Your task to perform on an android device: Add "asus rog" to the cart on bestbuy.com Image 0: 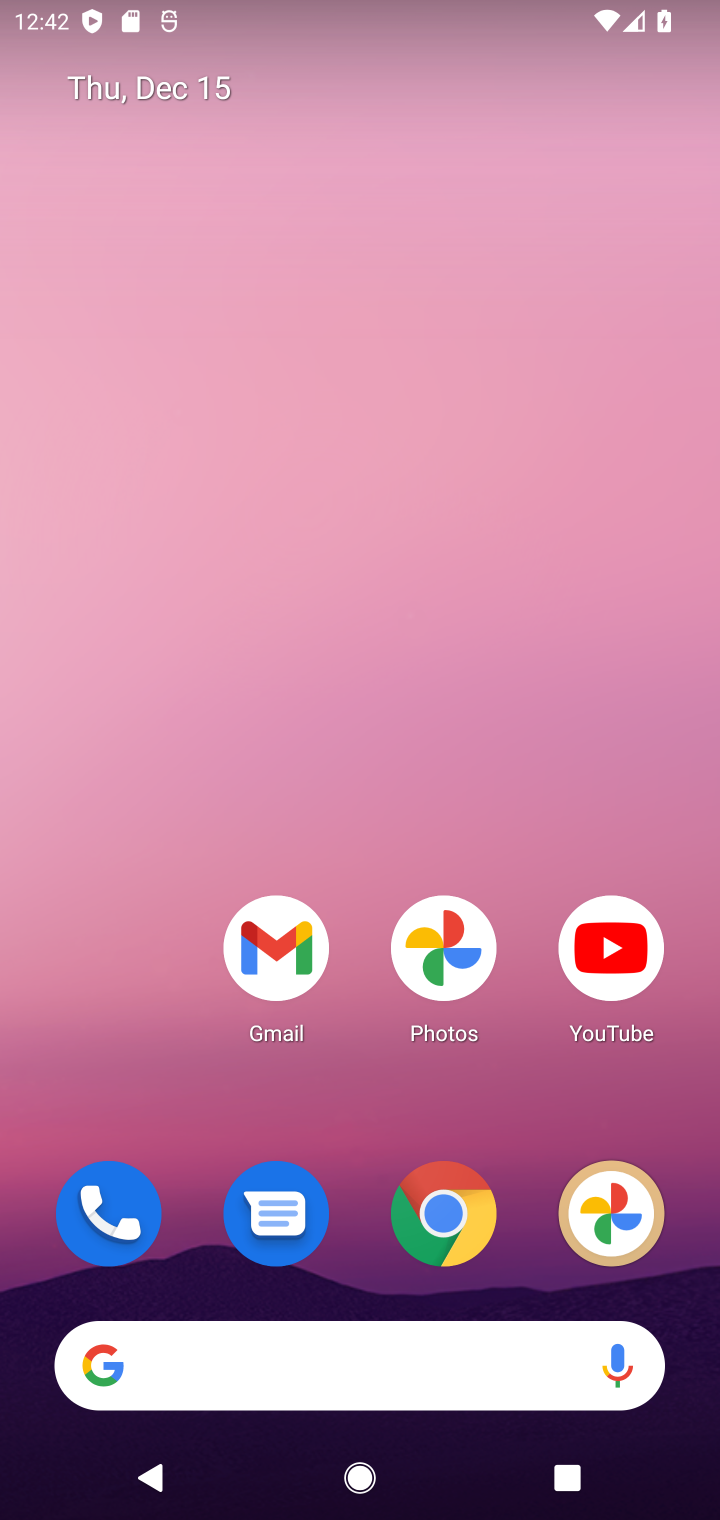
Step 0: click (457, 1238)
Your task to perform on an android device: Add "asus rog" to the cart on bestbuy.com Image 1: 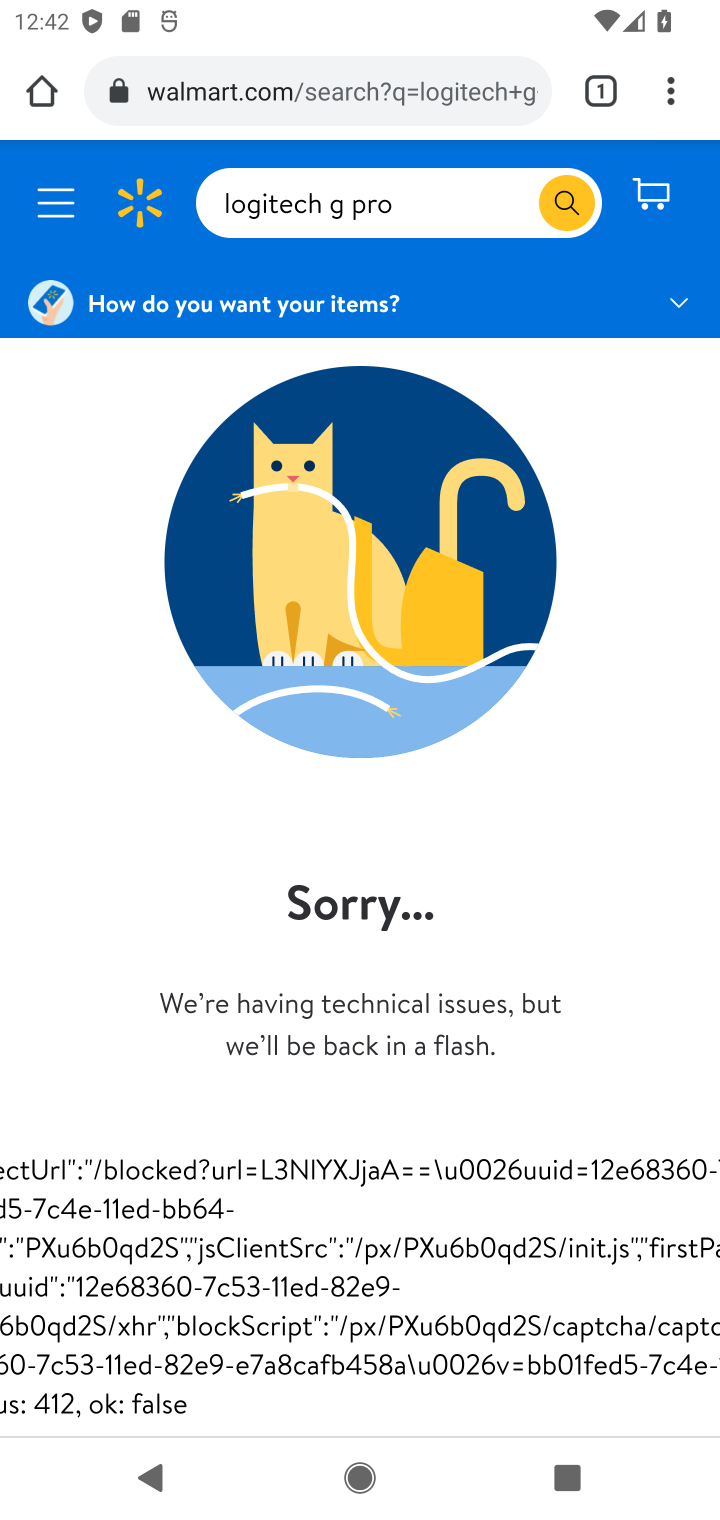
Step 1: click (236, 93)
Your task to perform on an android device: Add "asus rog" to the cart on bestbuy.com Image 2: 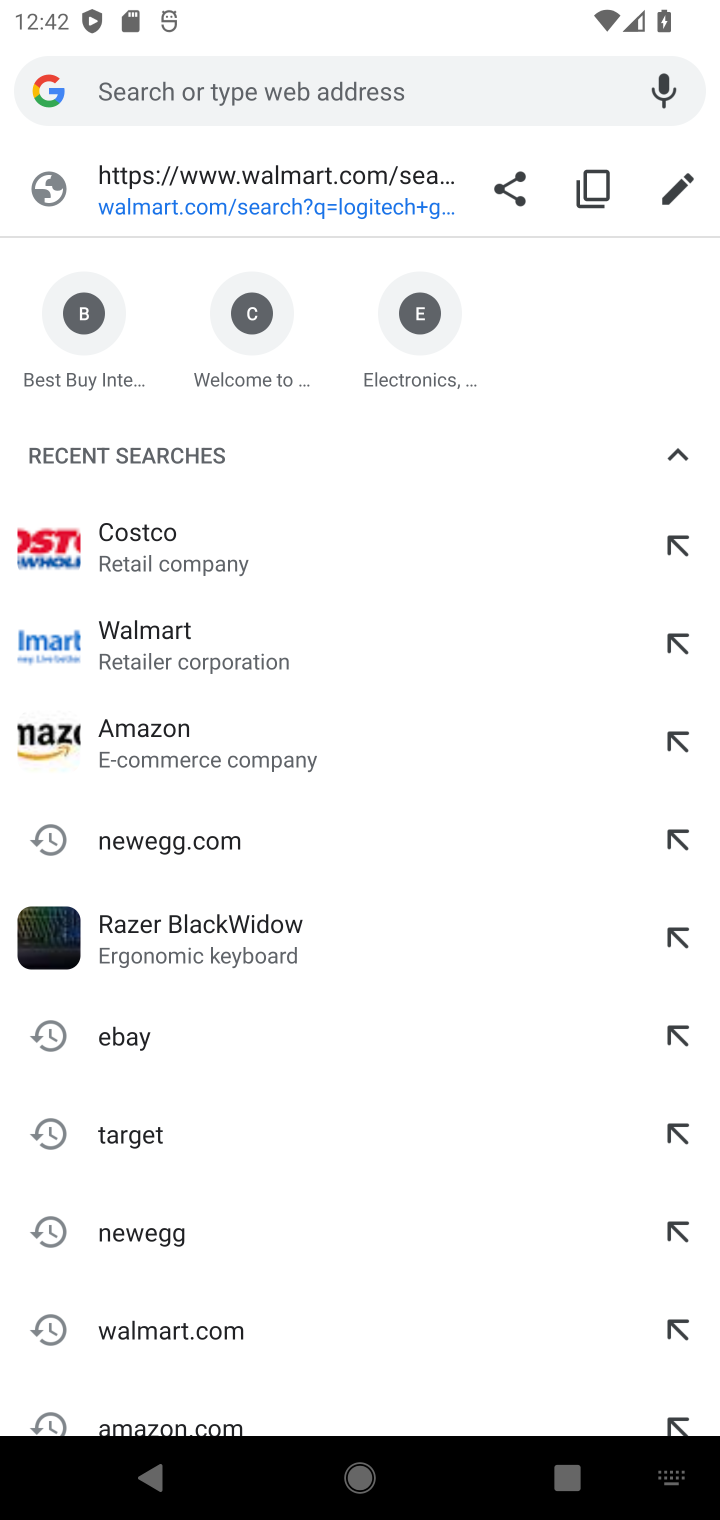
Step 2: type "bestbuy"
Your task to perform on an android device: Add "asus rog" to the cart on bestbuy.com Image 3: 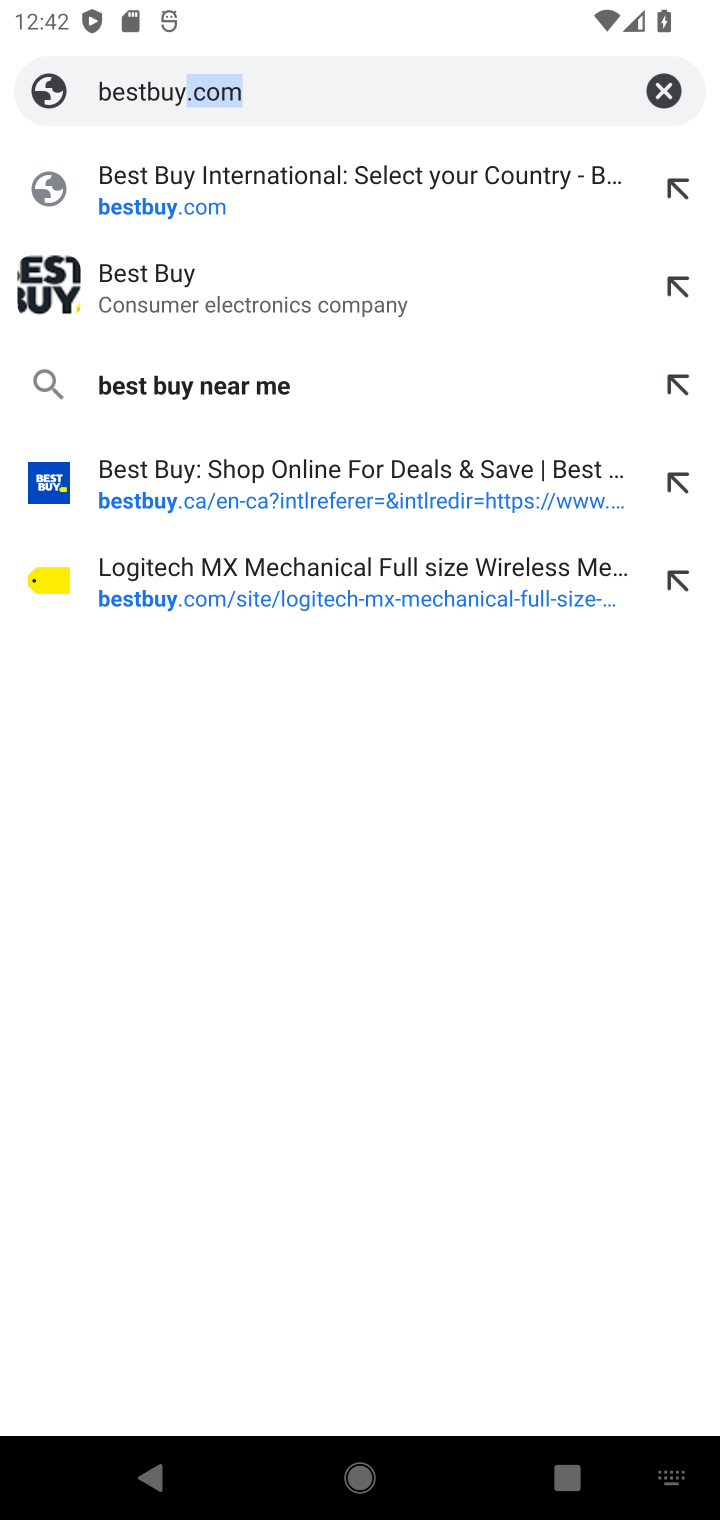
Step 3: click (236, 193)
Your task to perform on an android device: Add "asus rog" to the cart on bestbuy.com Image 4: 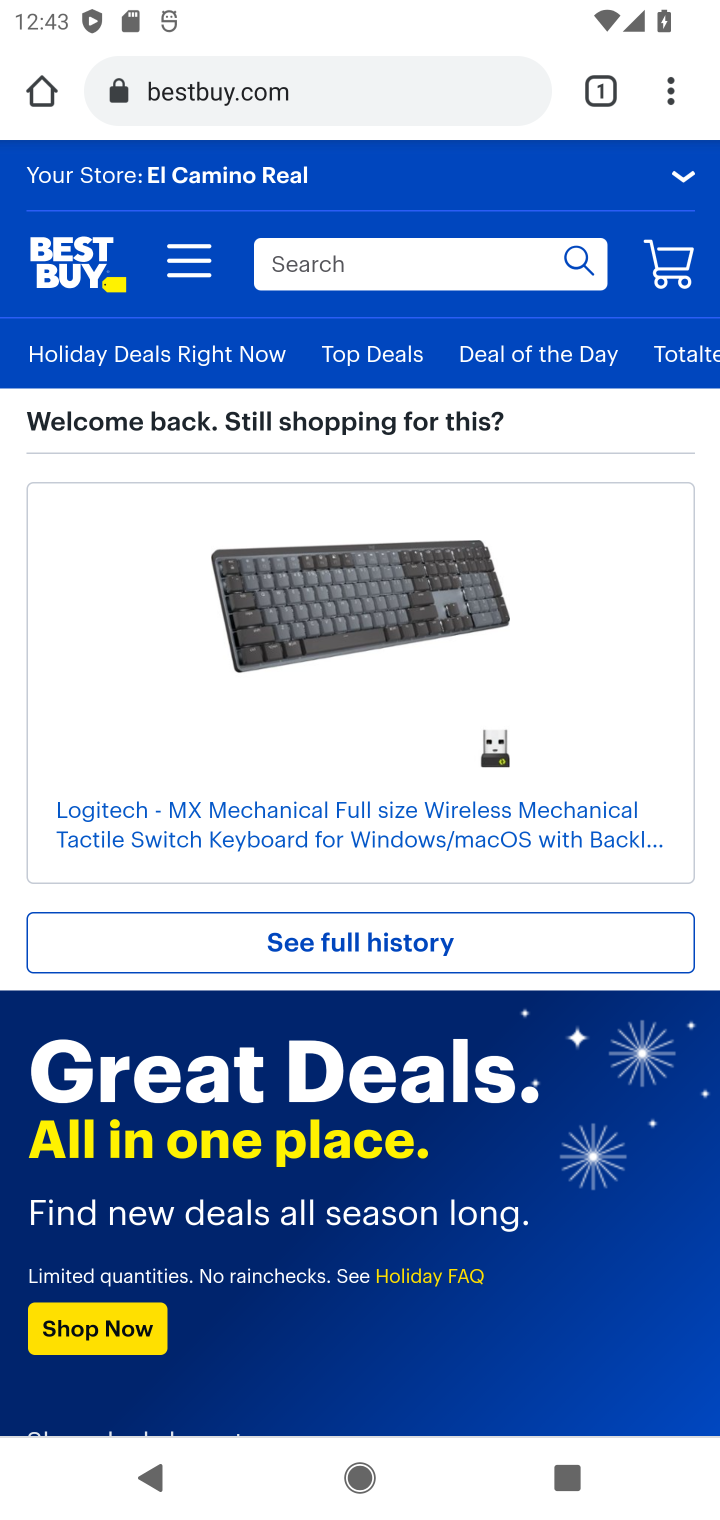
Step 4: click (359, 259)
Your task to perform on an android device: Add "asus rog" to the cart on bestbuy.com Image 5: 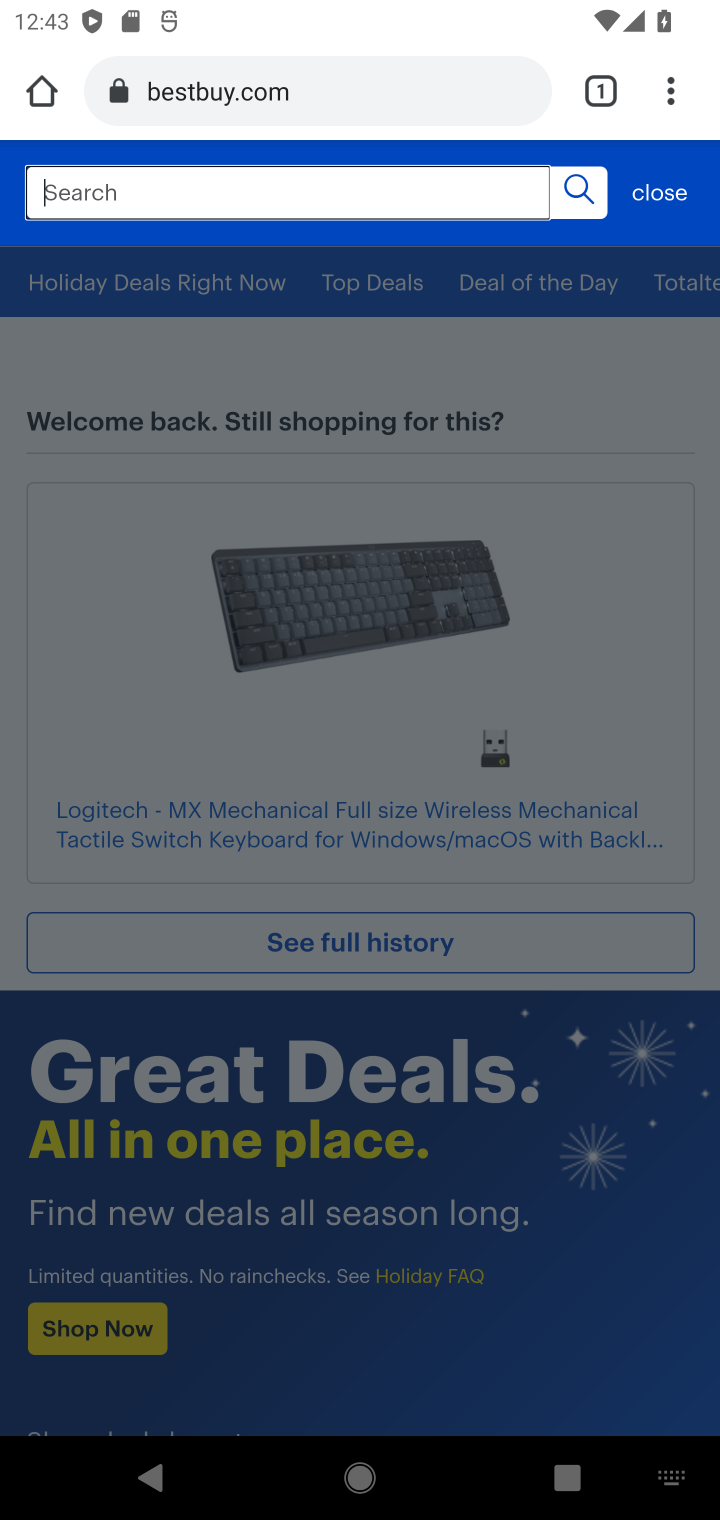
Step 5: type "asus rog"
Your task to perform on an android device: Add "asus rog" to the cart on bestbuy.com Image 6: 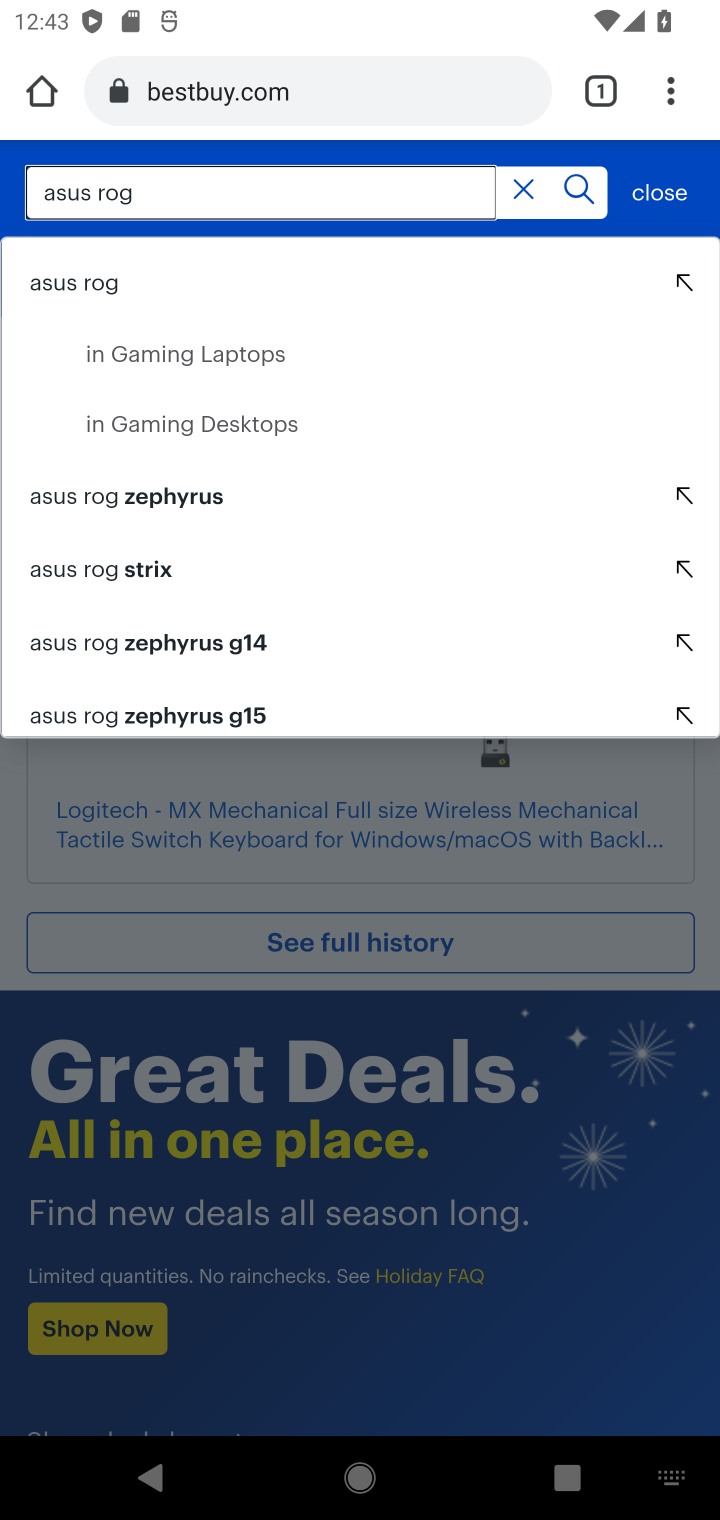
Step 6: click (51, 283)
Your task to perform on an android device: Add "asus rog" to the cart on bestbuy.com Image 7: 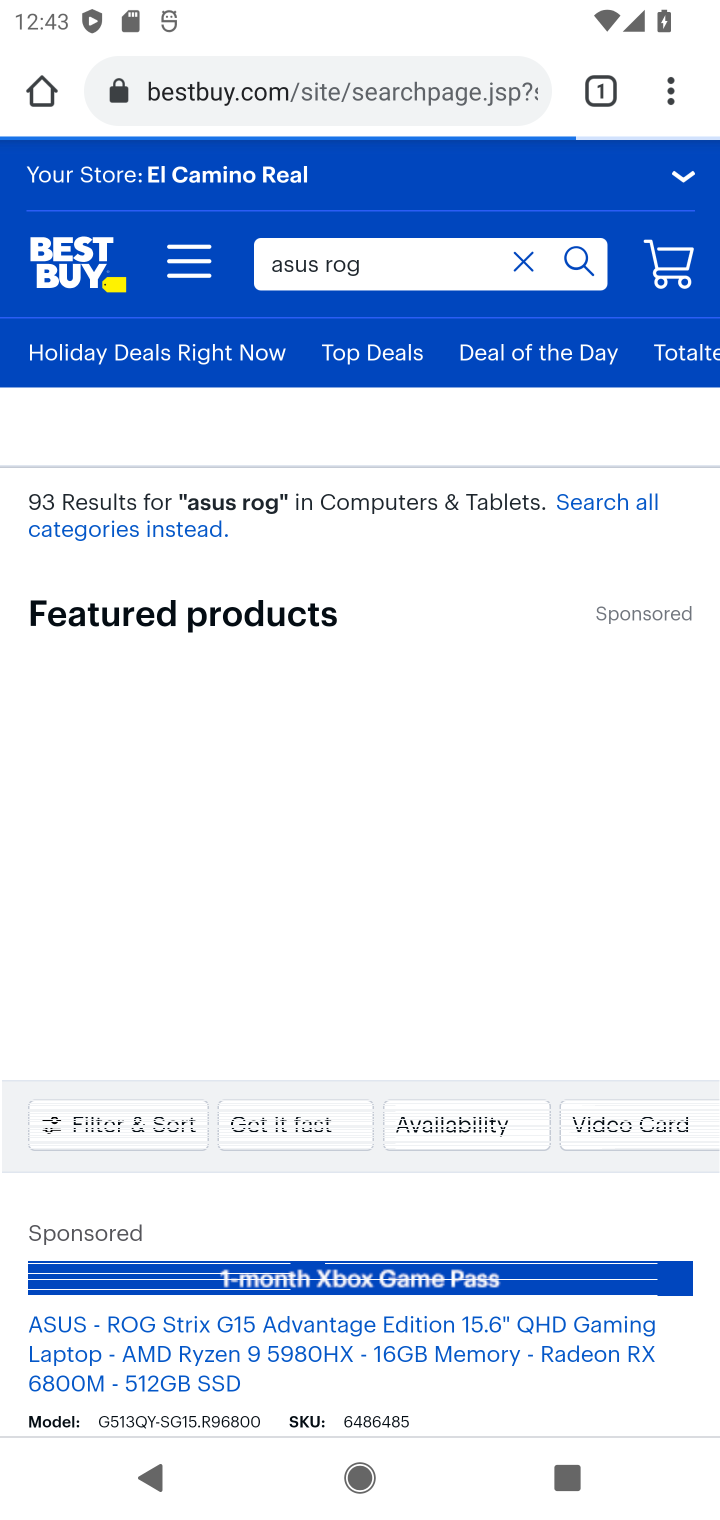
Step 7: click (580, 270)
Your task to perform on an android device: Add "asus rog" to the cart on bestbuy.com Image 8: 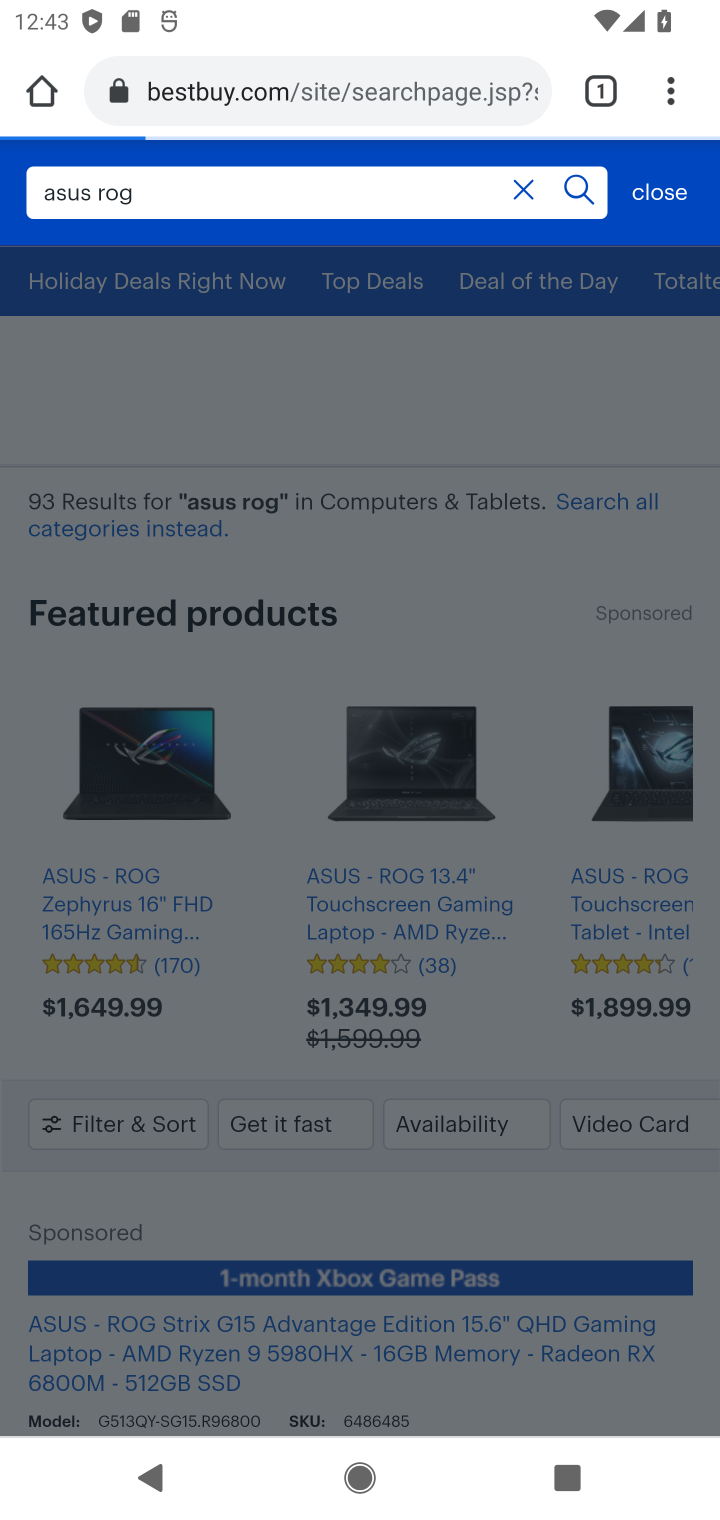
Step 8: click (168, 832)
Your task to perform on an android device: Add "asus rog" to the cart on bestbuy.com Image 9: 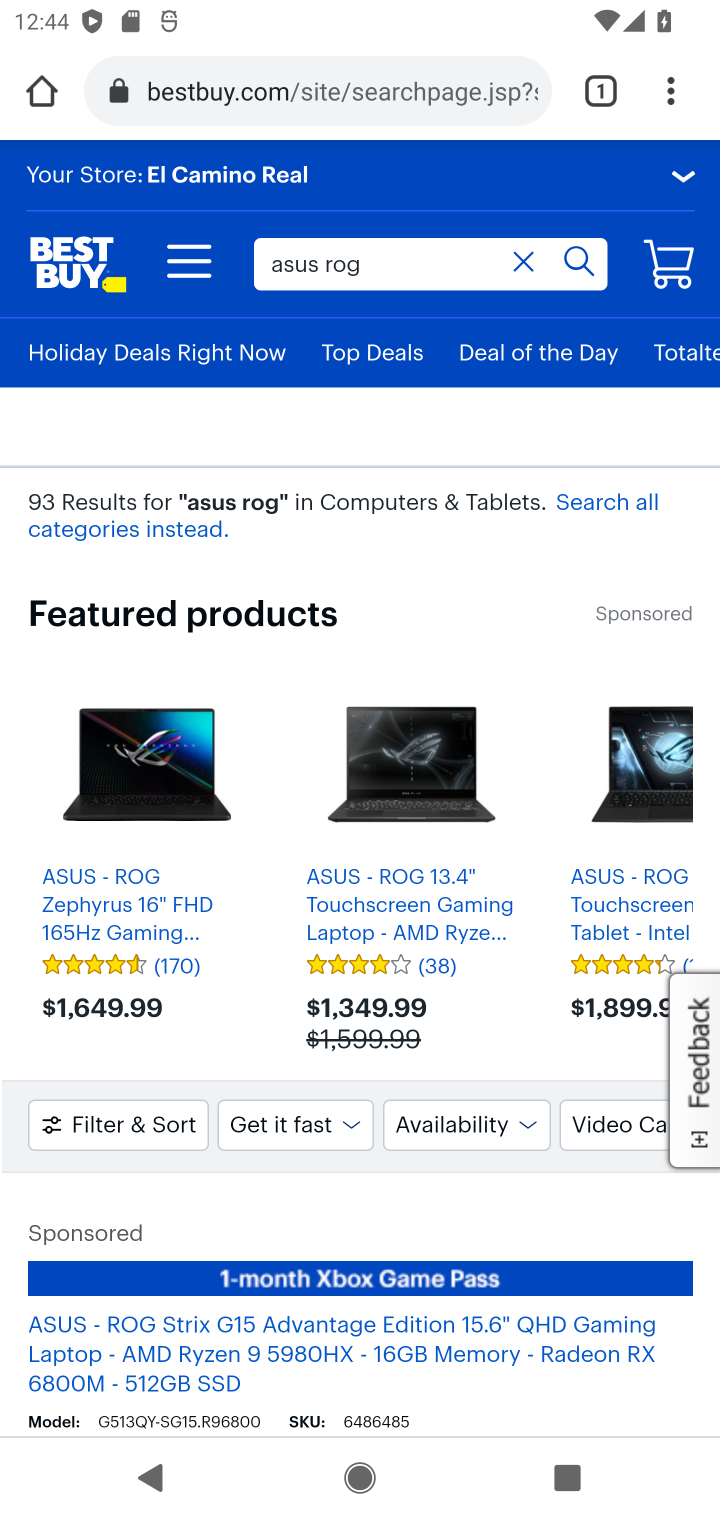
Step 9: click (205, 954)
Your task to perform on an android device: Add "asus rog" to the cart on bestbuy.com Image 10: 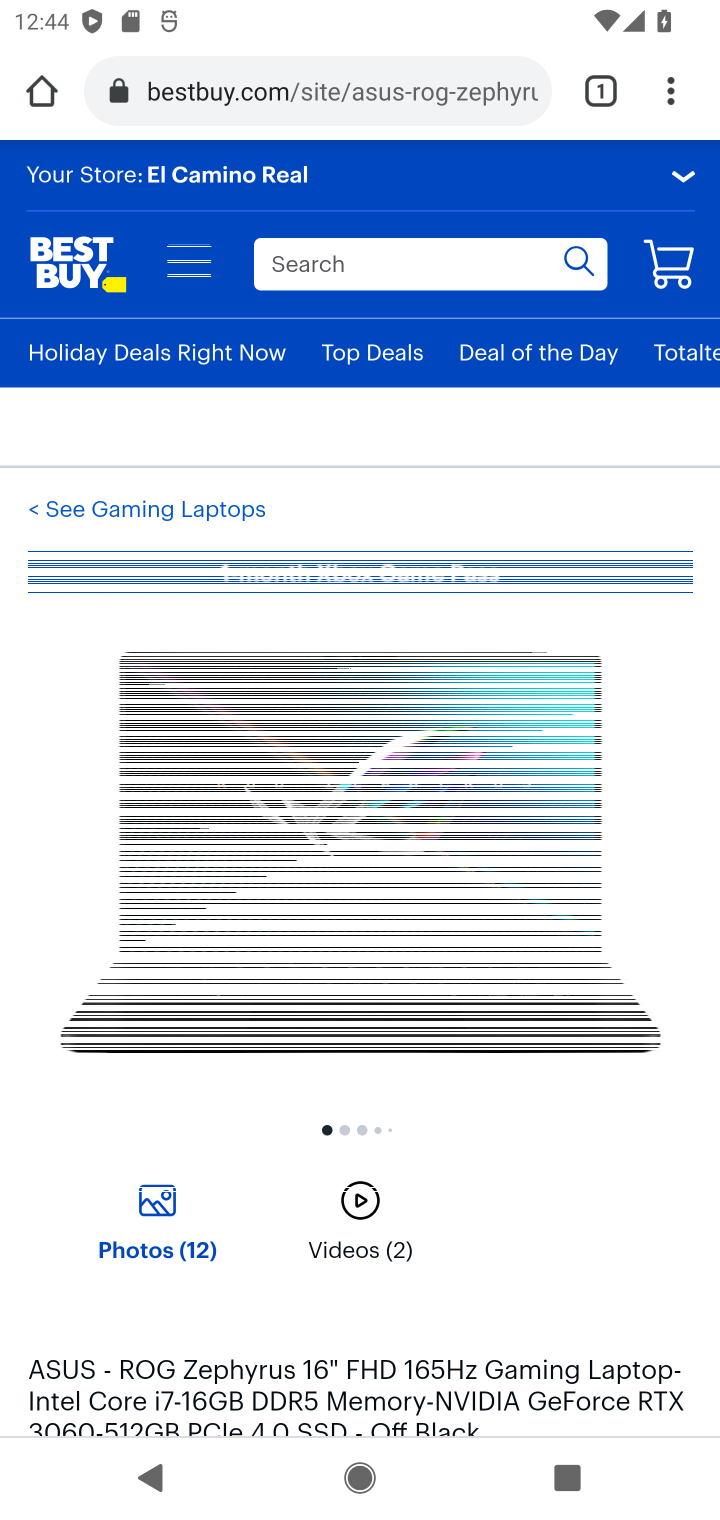
Step 10: task complete